Your task to perform on an android device: turn on priority inbox in the gmail app Image 0: 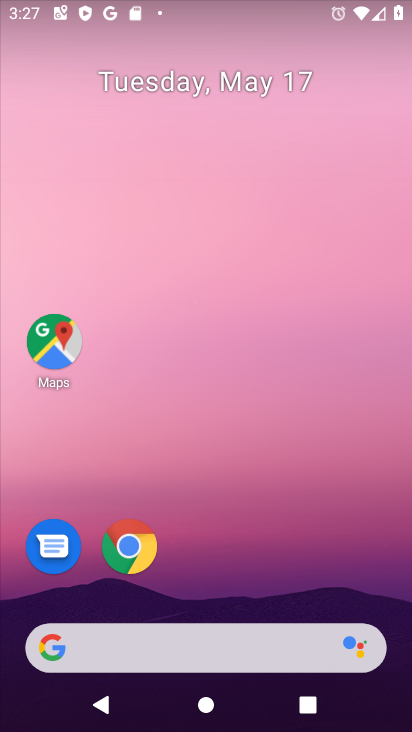
Step 0: drag from (385, 409) to (364, 258)
Your task to perform on an android device: turn on priority inbox in the gmail app Image 1: 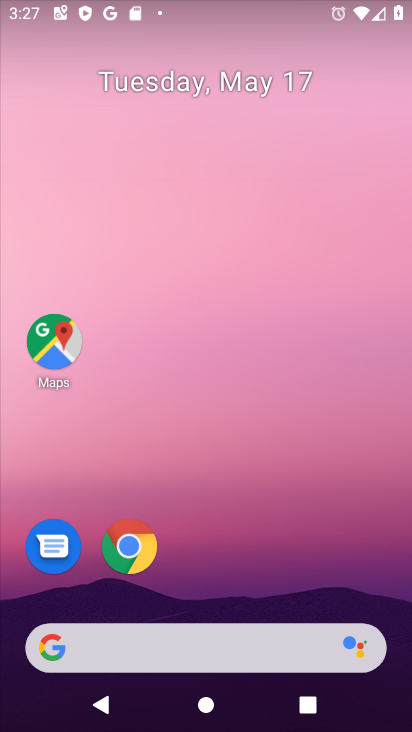
Step 1: drag from (396, 664) to (353, 141)
Your task to perform on an android device: turn on priority inbox in the gmail app Image 2: 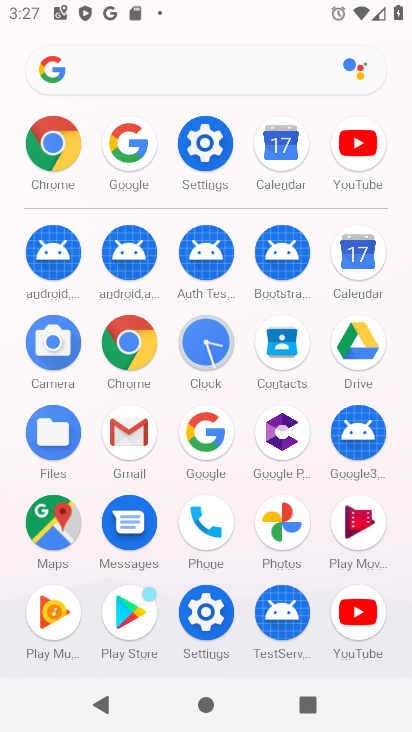
Step 2: click (116, 427)
Your task to perform on an android device: turn on priority inbox in the gmail app Image 3: 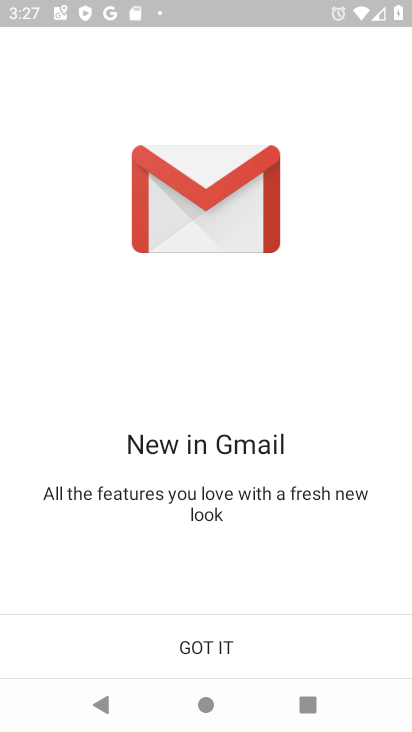
Step 3: click (239, 653)
Your task to perform on an android device: turn on priority inbox in the gmail app Image 4: 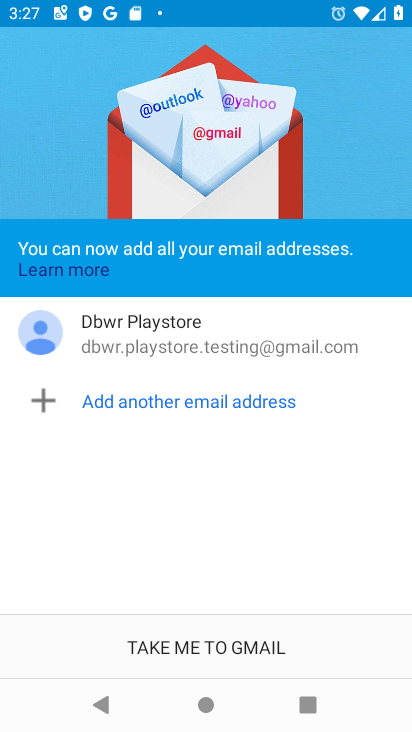
Step 4: click (220, 646)
Your task to perform on an android device: turn on priority inbox in the gmail app Image 5: 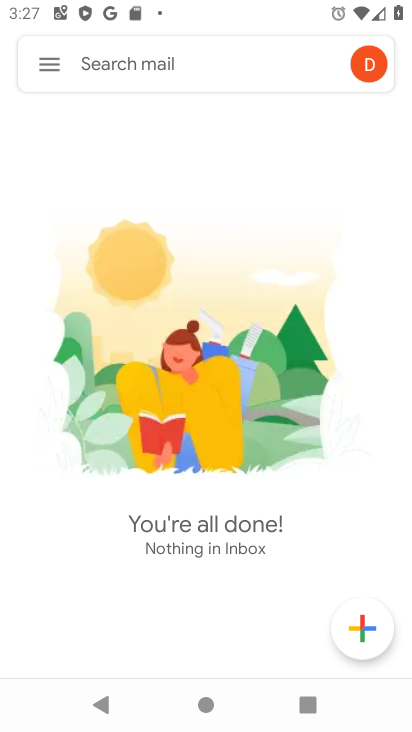
Step 5: click (48, 67)
Your task to perform on an android device: turn on priority inbox in the gmail app Image 6: 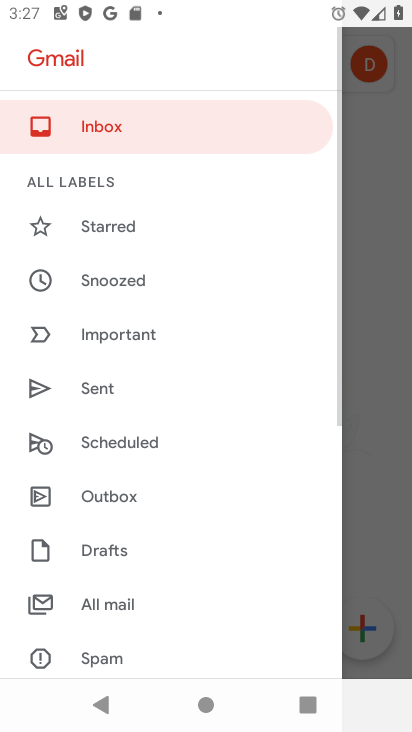
Step 6: drag from (216, 589) to (201, 279)
Your task to perform on an android device: turn on priority inbox in the gmail app Image 7: 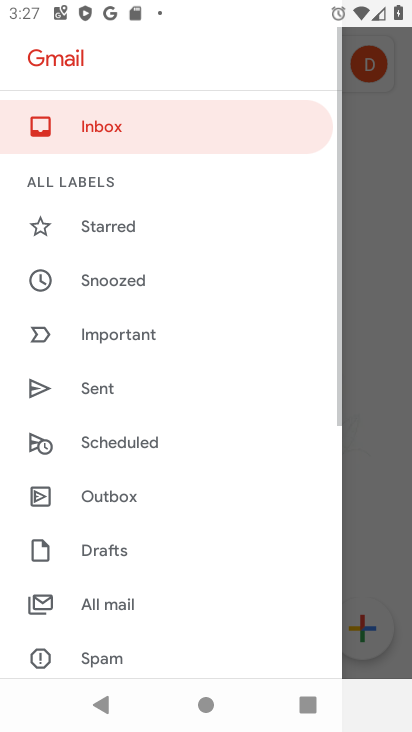
Step 7: drag from (270, 645) to (248, 329)
Your task to perform on an android device: turn on priority inbox in the gmail app Image 8: 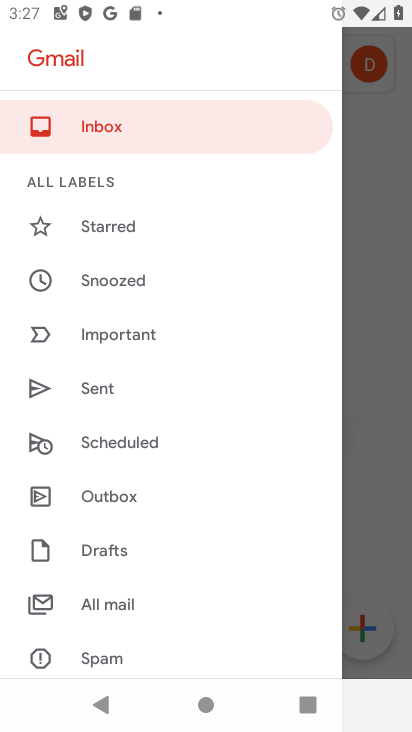
Step 8: drag from (215, 657) to (218, 349)
Your task to perform on an android device: turn on priority inbox in the gmail app Image 9: 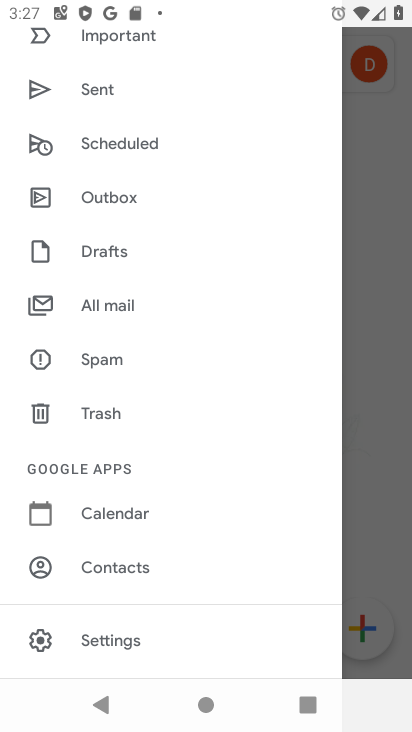
Step 9: click (97, 633)
Your task to perform on an android device: turn on priority inbox in the gmail app Image 10: 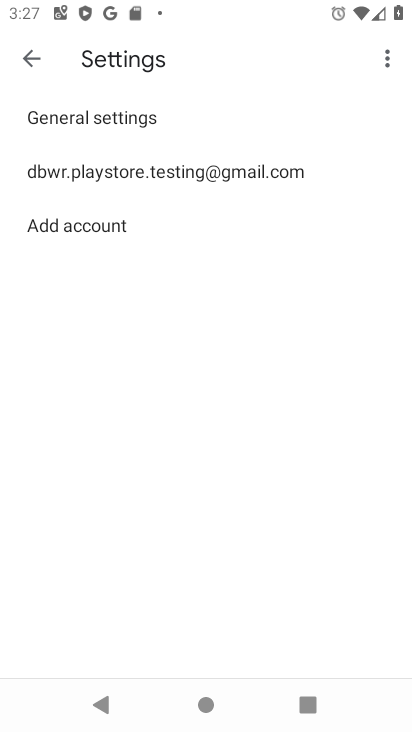
Step 10: click (83, 166)
Your task to perform on an android device: turn on priority inbox in the gmail app Image 11: 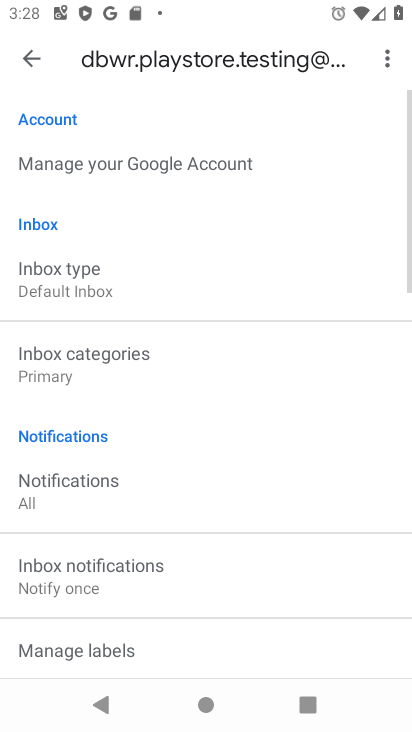
Step 11: click (73, 279)
Your task to perform on an android device: turn on priority inbox in the gmail app Image 12: 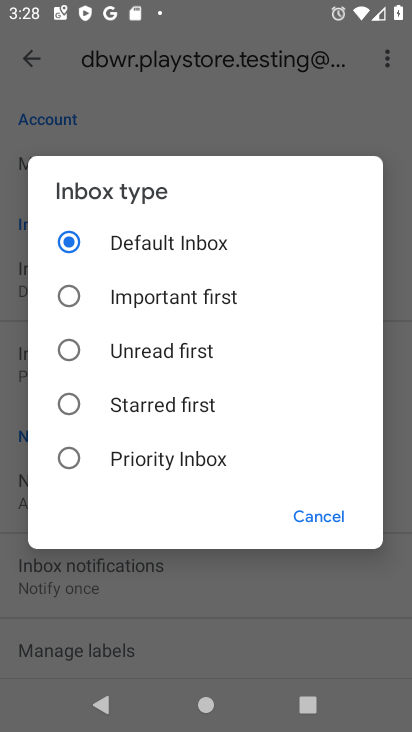
Step 12: click (71, 451)
Your task to perform on an android device: turn on priority inbox in the gmail app Image 13: 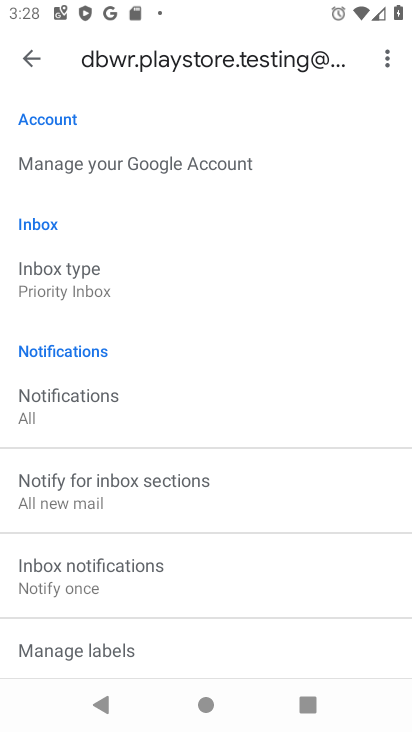
Step 13: task complete